Your task to perform on an android device: set the timer Image 0: 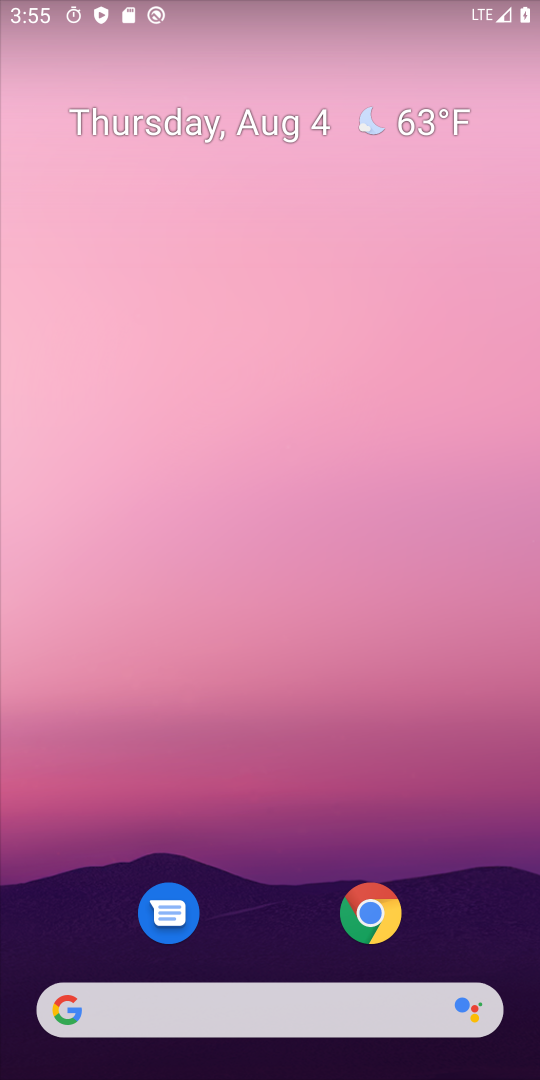
Step 0: drag from (305, 897) to (365, 14)
Your task to perform on an android device: set the timer Image 1: 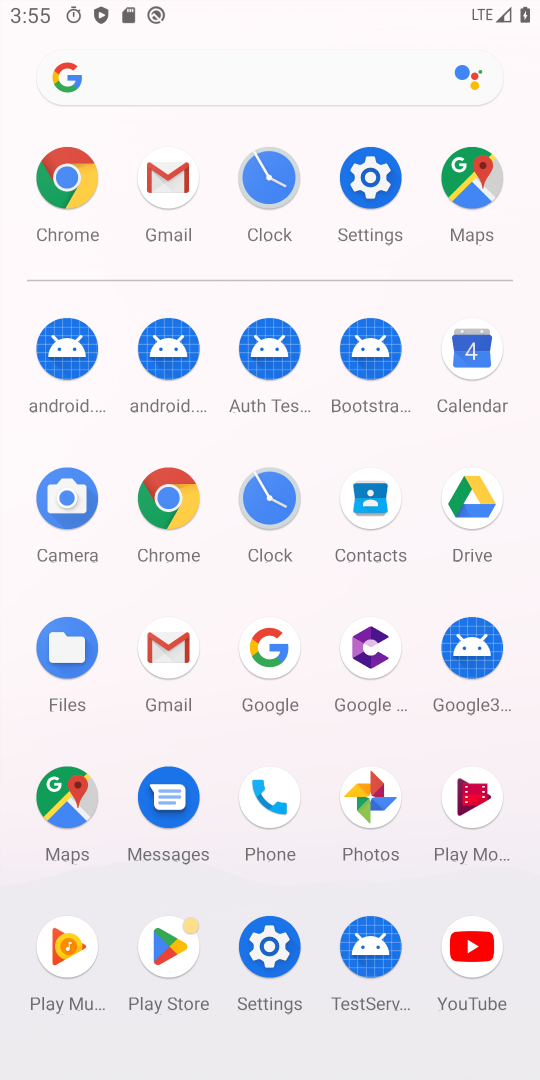
Step 1: click (264, 503)
Your task to perform on an android device: set the timer Image 2: 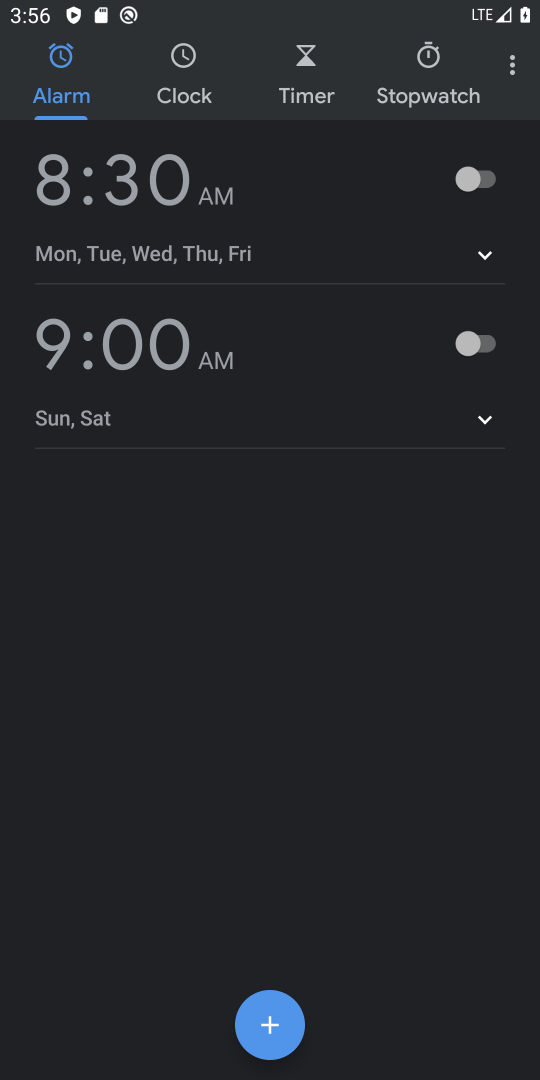
Step 2: click (308, 76)
Your task to perform on an android device: set the timer Image 3: 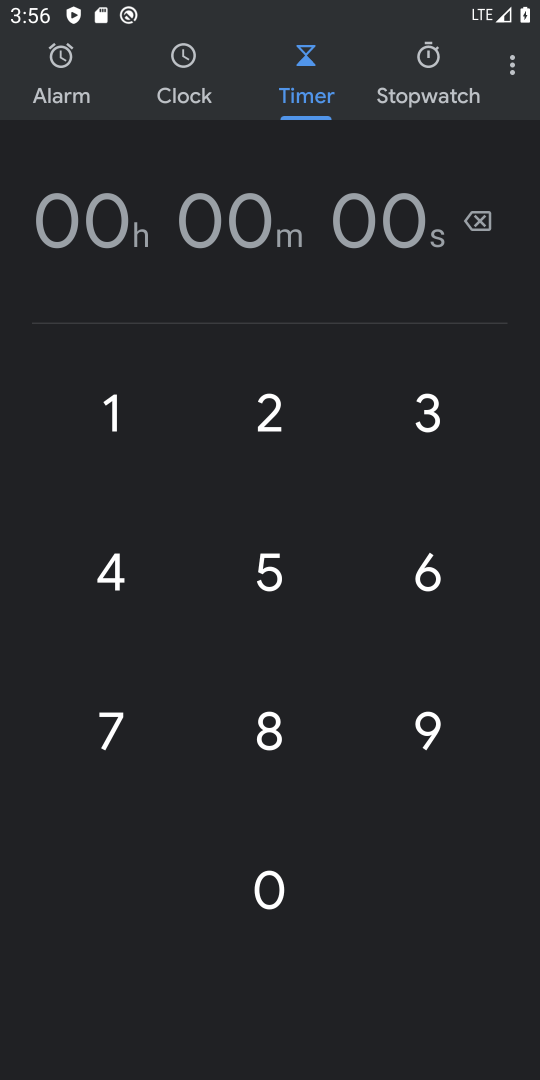
Step 3: click (276, 730)
Your task to perform on an android device: set the timer Image 4: 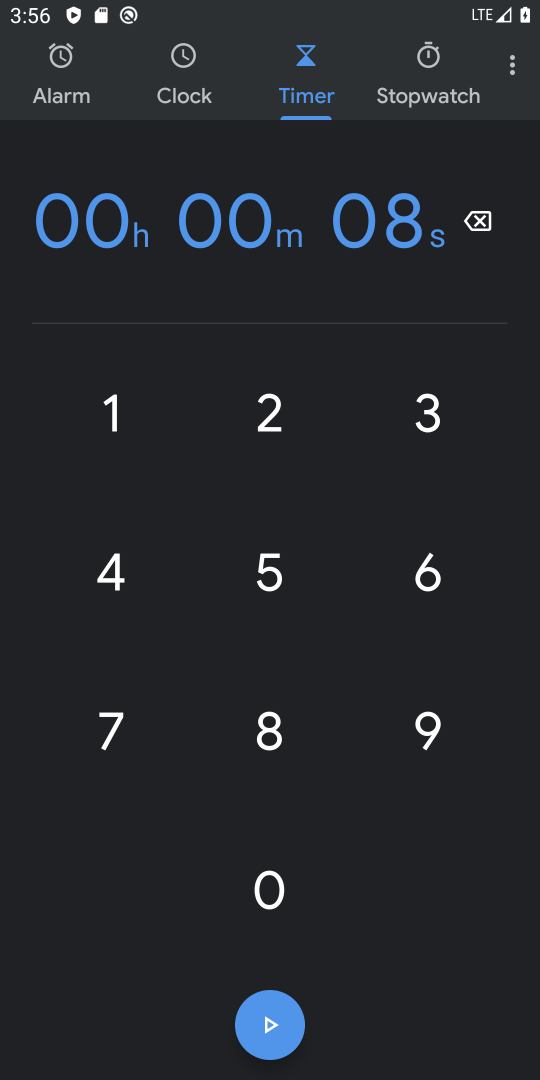
Step 4: click (426, 723)
Your task to perform on an android device: set the timer Image 5: 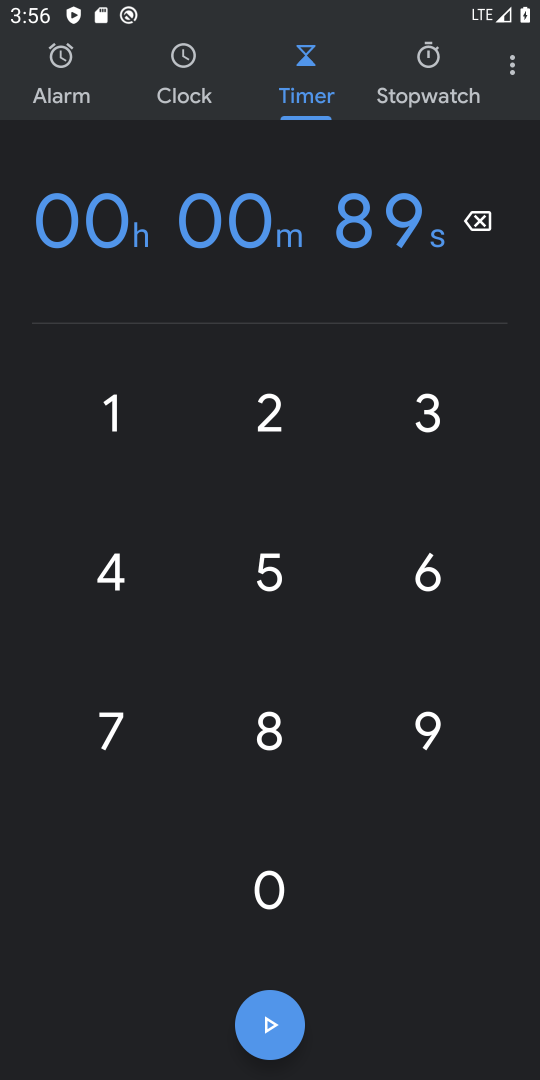
Step 5: click (258, 582)
Your task to perform on an android device: set the timer Image 6: 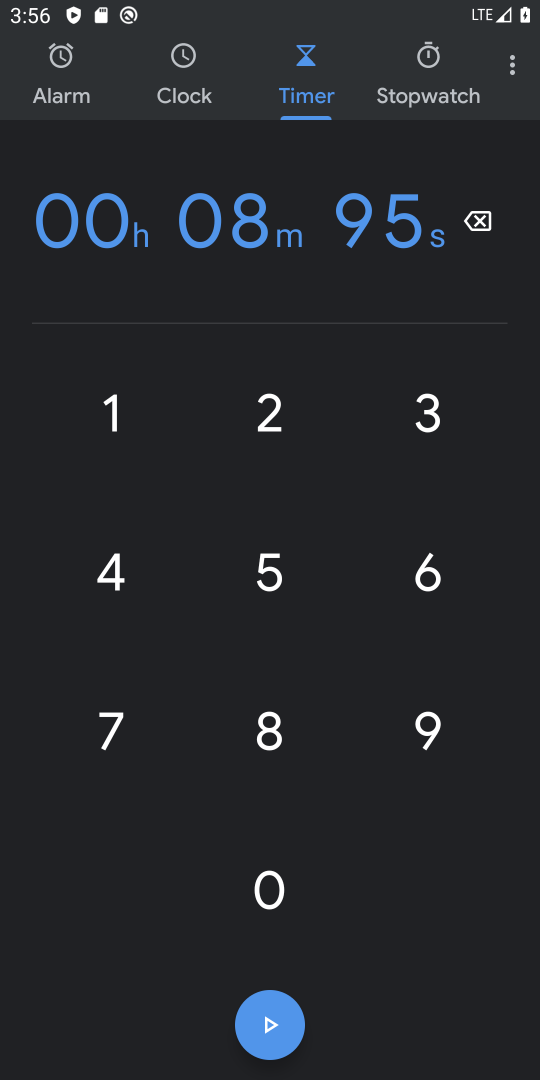
Step 6: click (413, 568)
Your task to perform on an android device: set the timer Image 7: 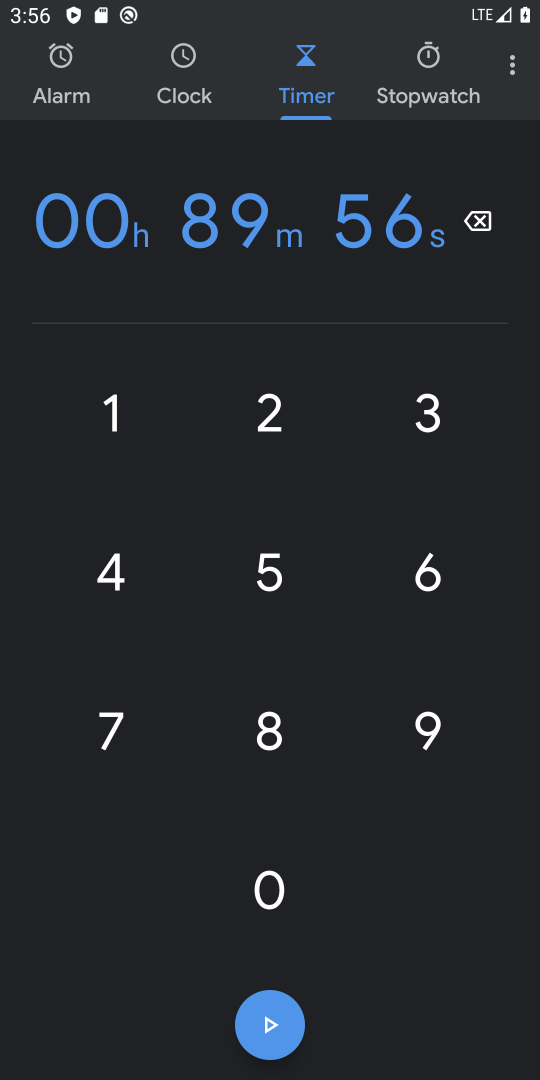
Step 7: click (265, 390)
Your task to perform on an android device: set the timer Image 8: 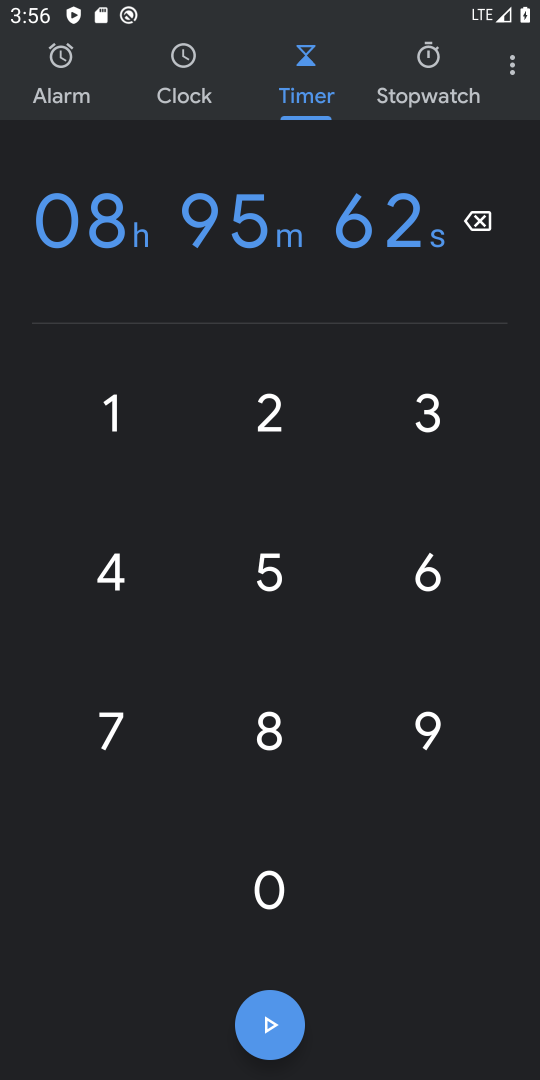
Step 8: click (445, 414)
Your task to perform on an android device: set the timer Image 9: 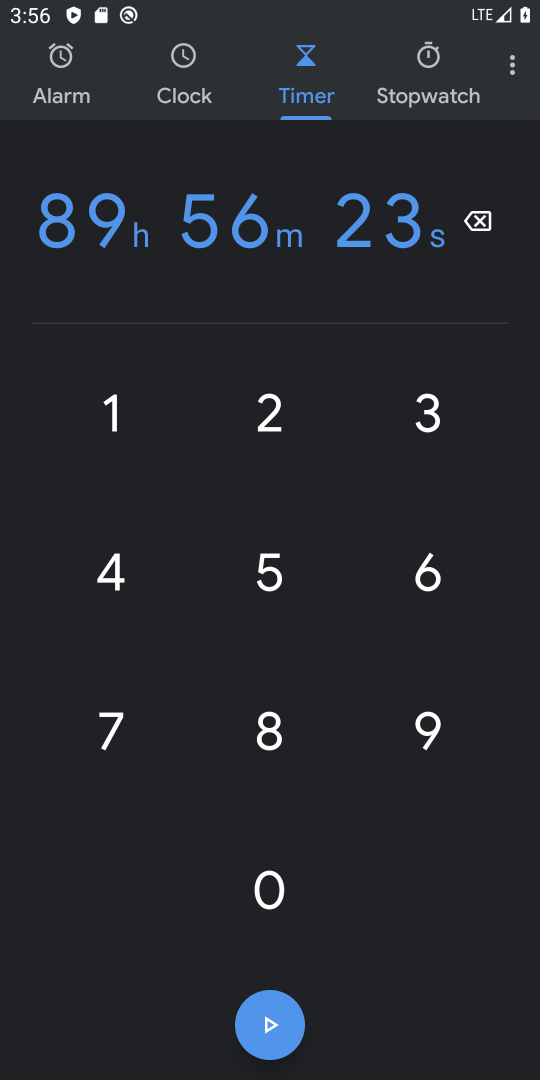
Step 9: click (252, 1019)
Your task to perform on an android device: set the timer Image 10: 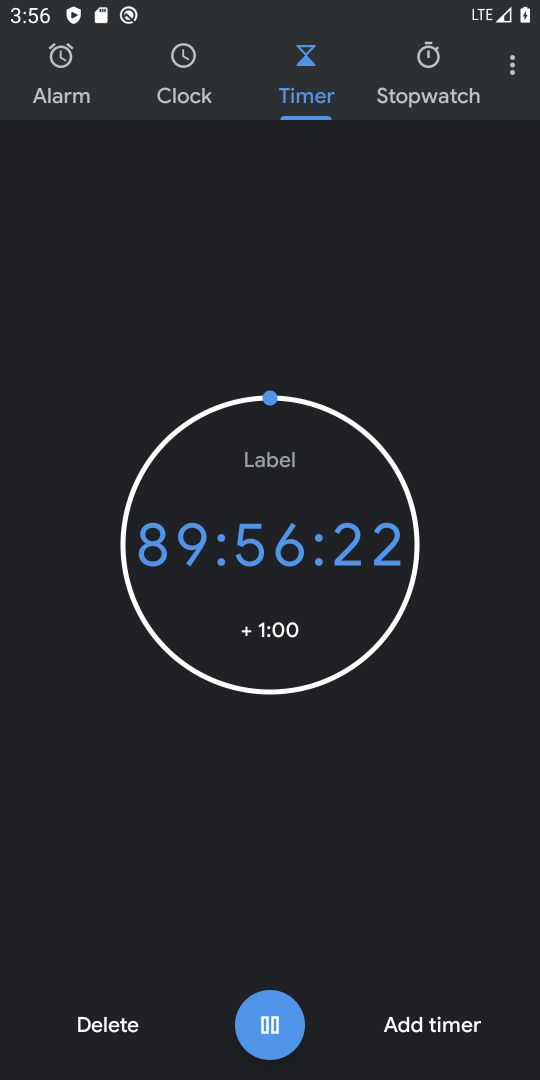
Step 10: task complete